Your task to perform on an android device: clear all cookies in the chrome app Image 0: 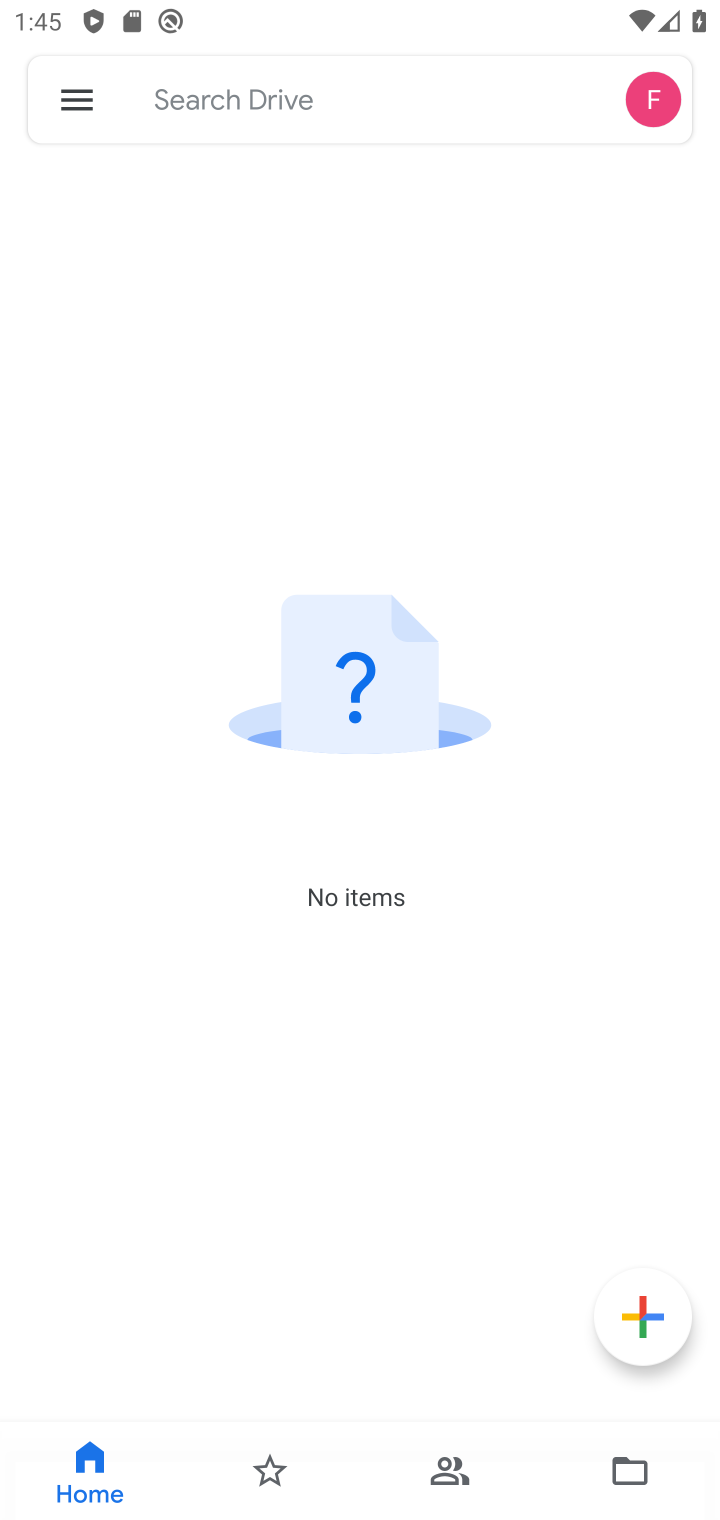
Step 0: press home button
Your task to perform on an android device: clear all cookies in the chrome app Image 1: 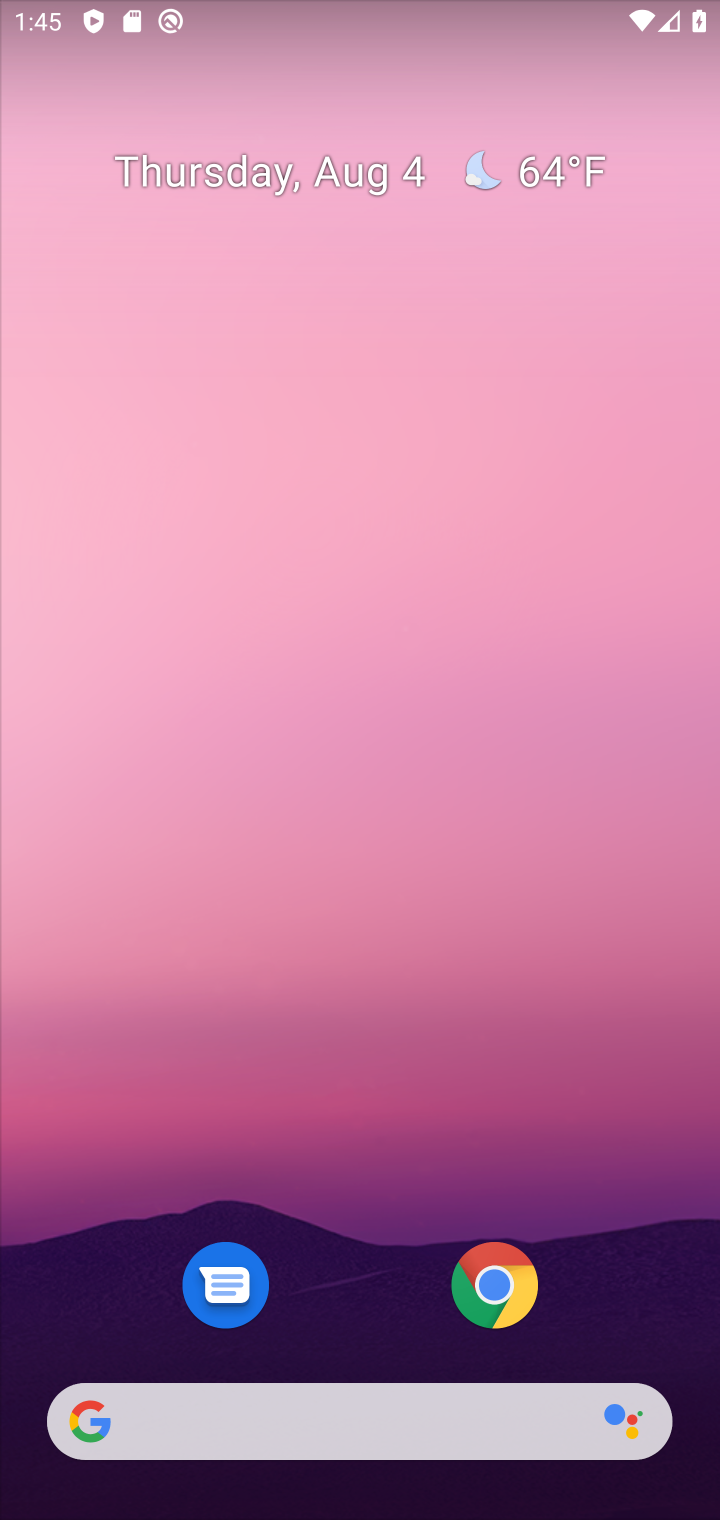
Step 1: click (499, 1289)
Your task to perform on an android device: clear all cookies in the chrome app Image 2: 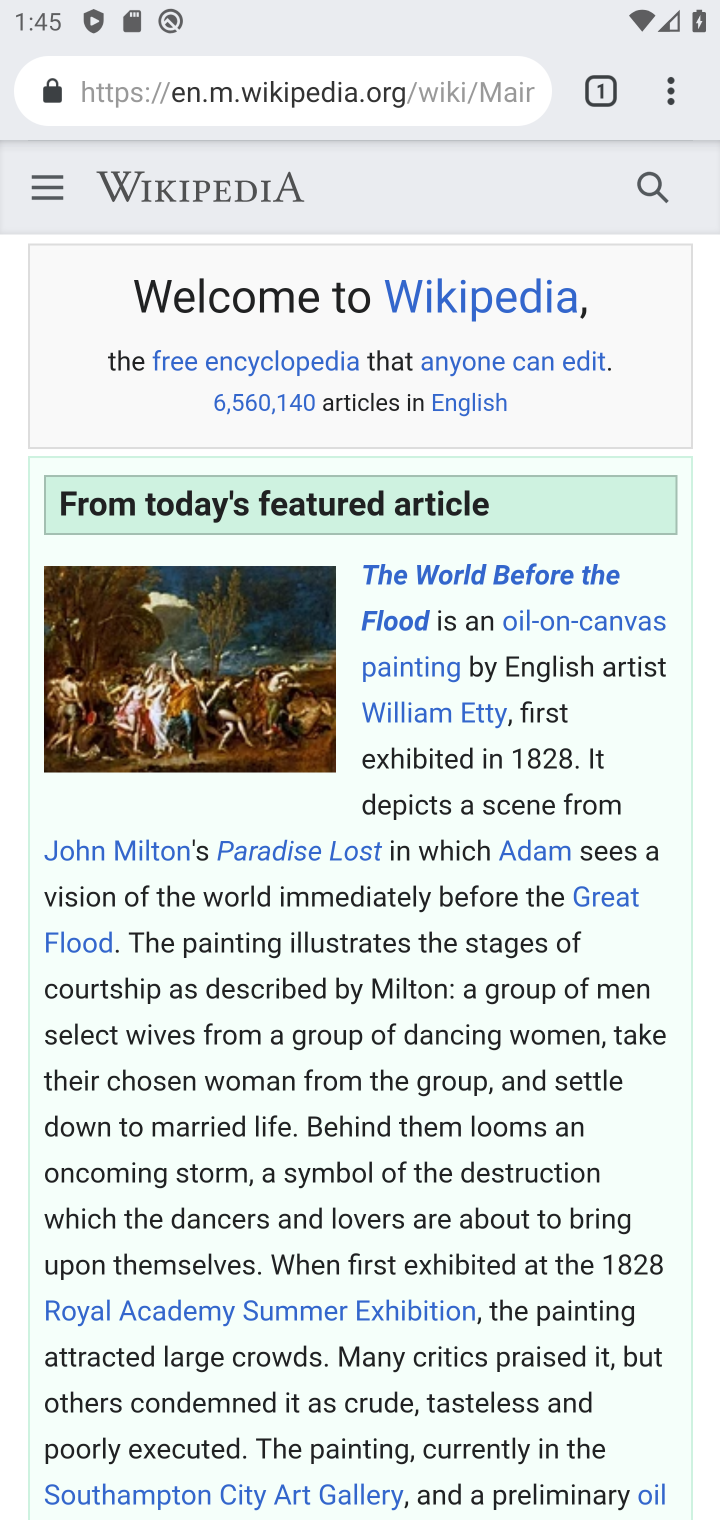
Step 2: click (661, 102)
Your task to perform on an android device: clear all cookies in the chrome app Image 3: 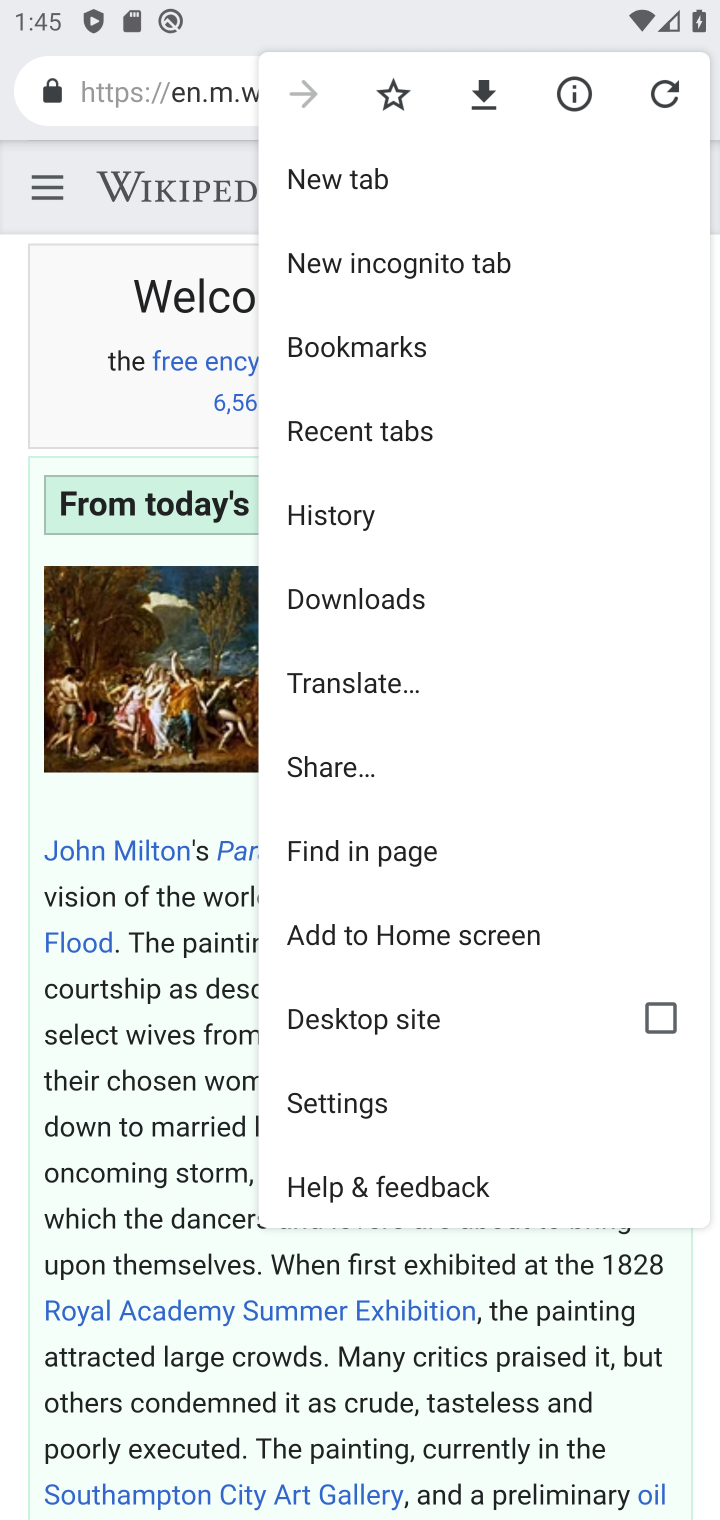
Step 3: click (333, 514)
Your task to perform on an android device: clear all cookies in the chrome app Image 4: 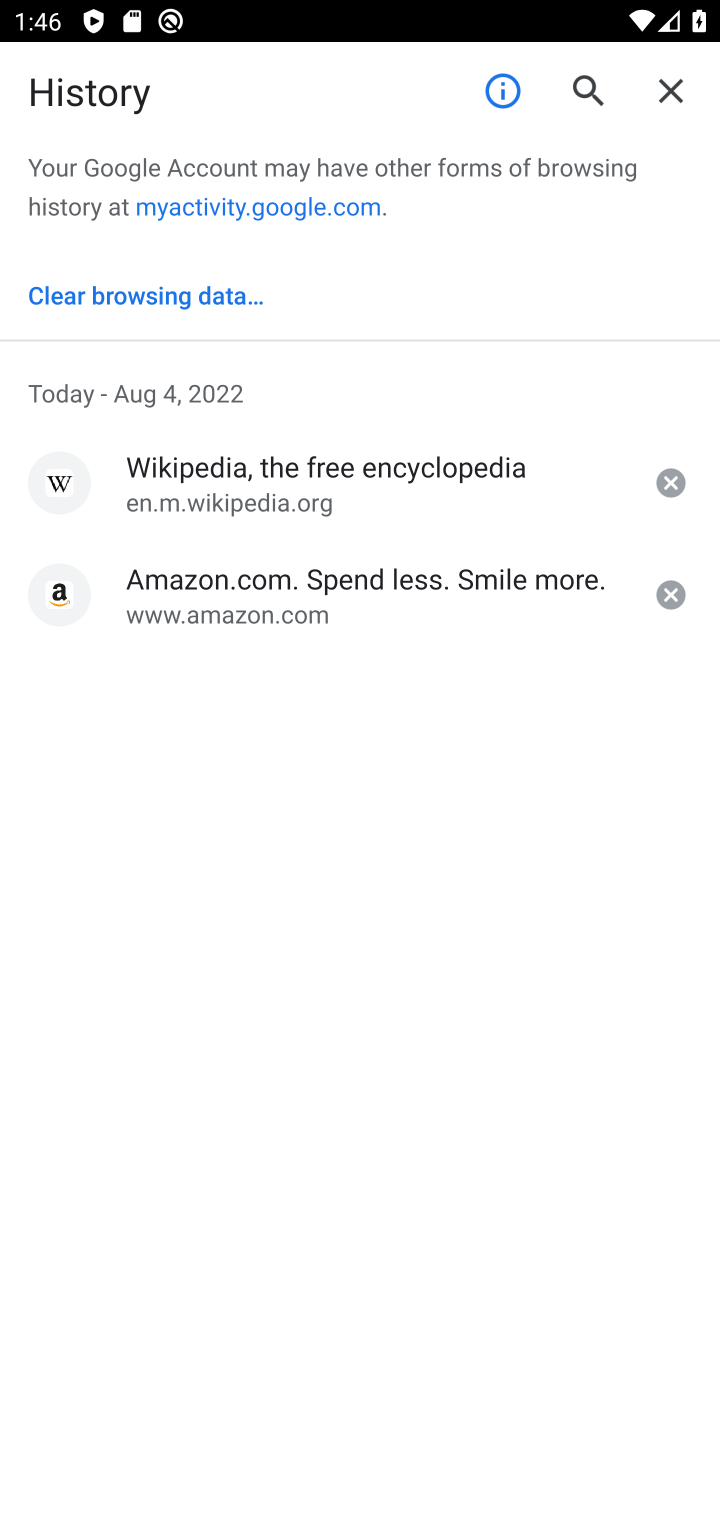
Step 4: click (138, 295)
Your task to perform on an android device: clear all cookies in the chrome app Image 5: 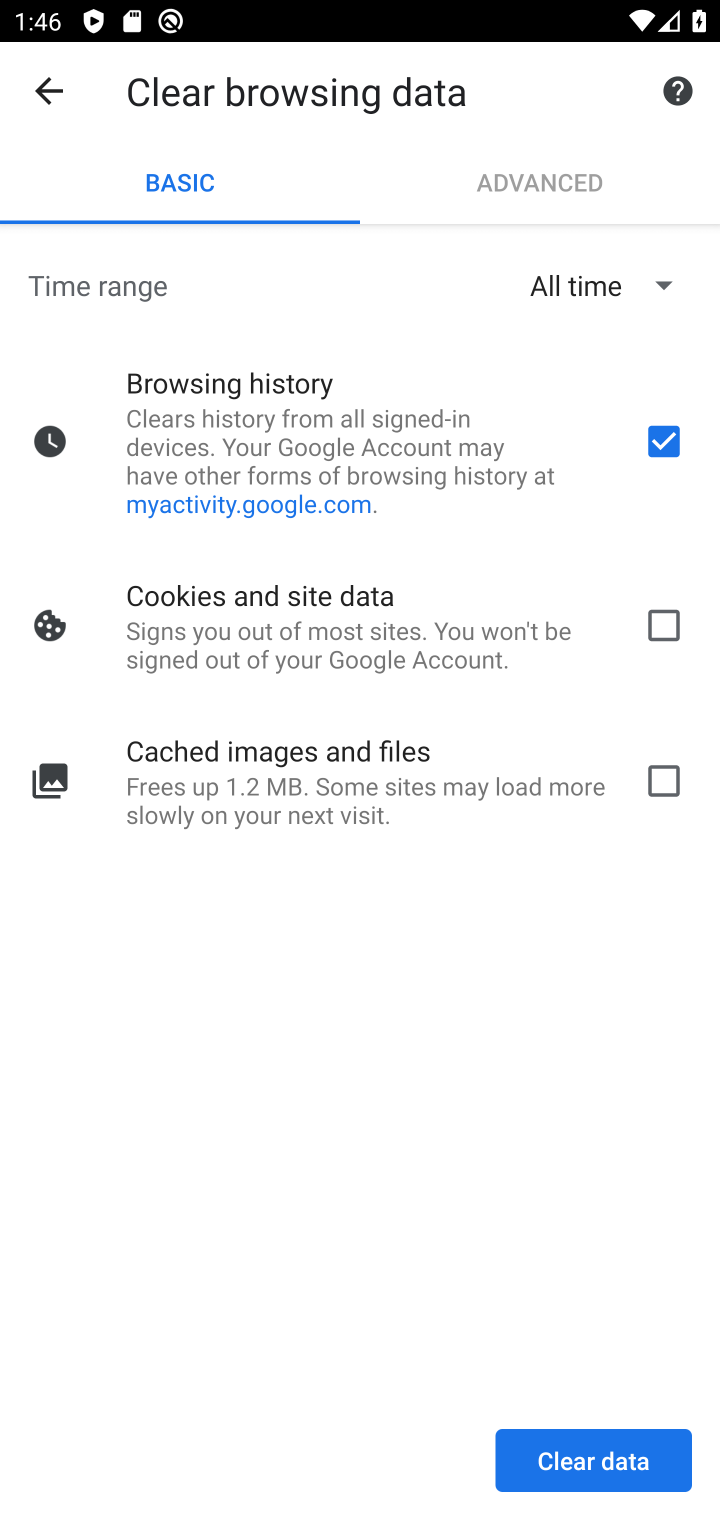
Step 5: click (660, 628)
Your task to perform on an android device: clear all cookies in the chrome app Image 6: 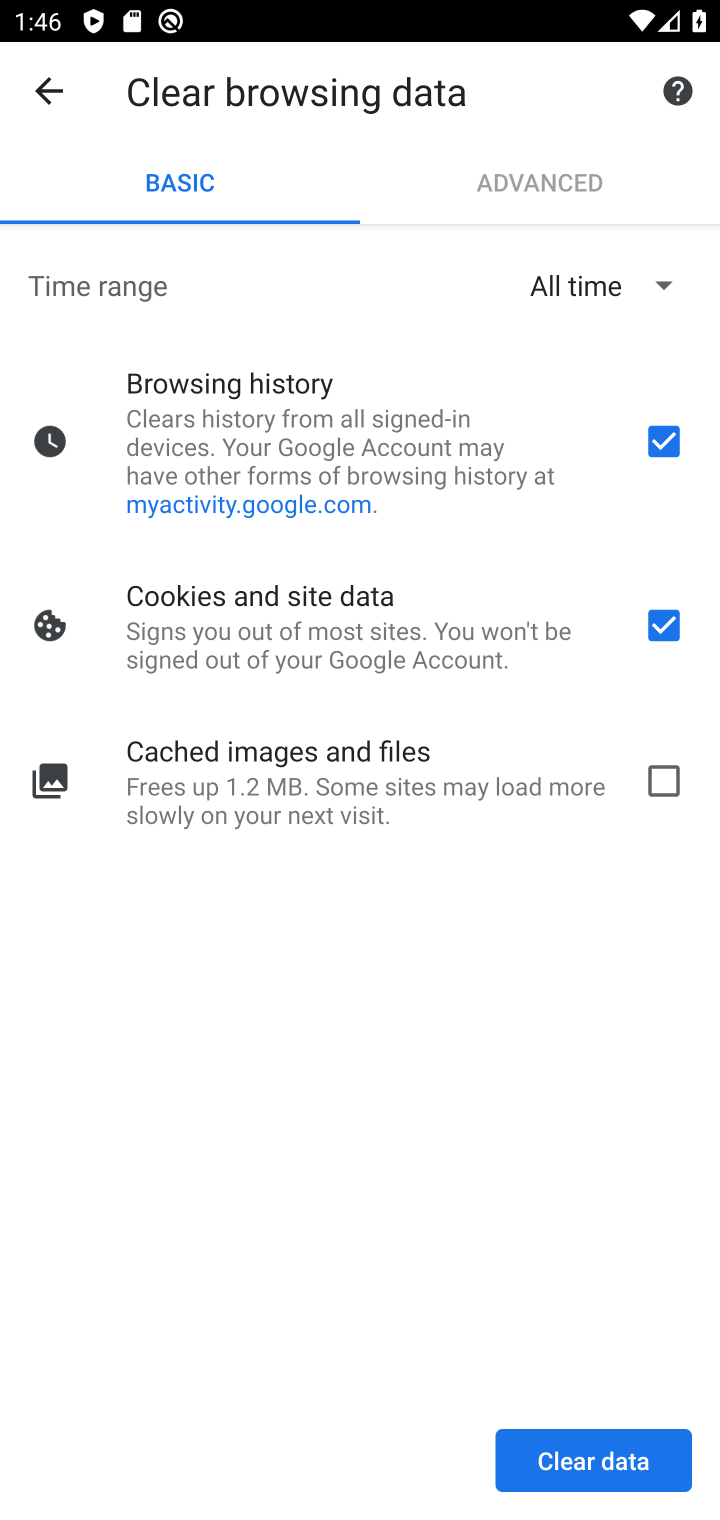
Step 6: click (660, 443)
Your task to perform on an android device: clear all cookies in the chrome app Image 7: 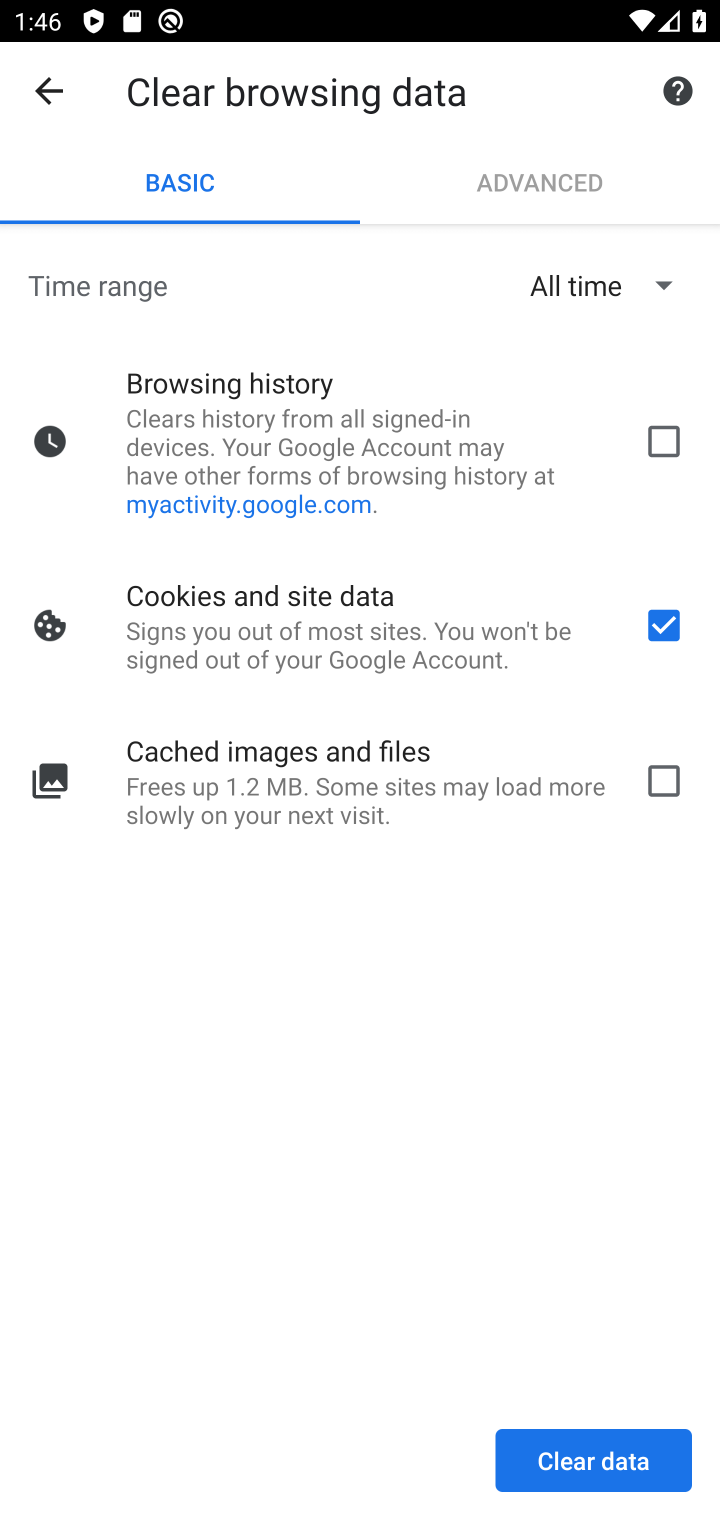
Step 7: click (595, 1461)
Your task to perform on an android device: clear all cookies in the chrome app Image 8: 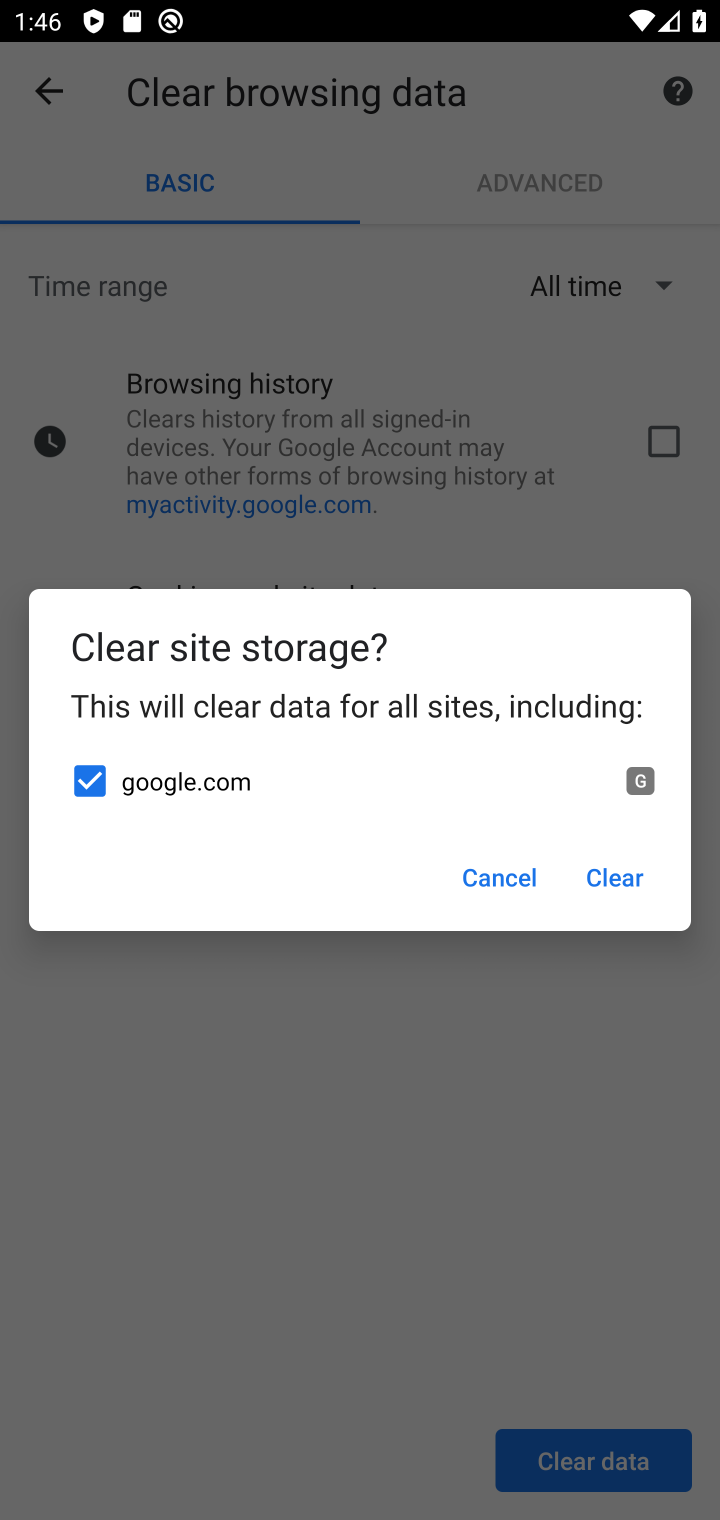
Step 8: click (608, 871)
Your task to perform on an android device: clear all cookies in the chrome app Image 9: 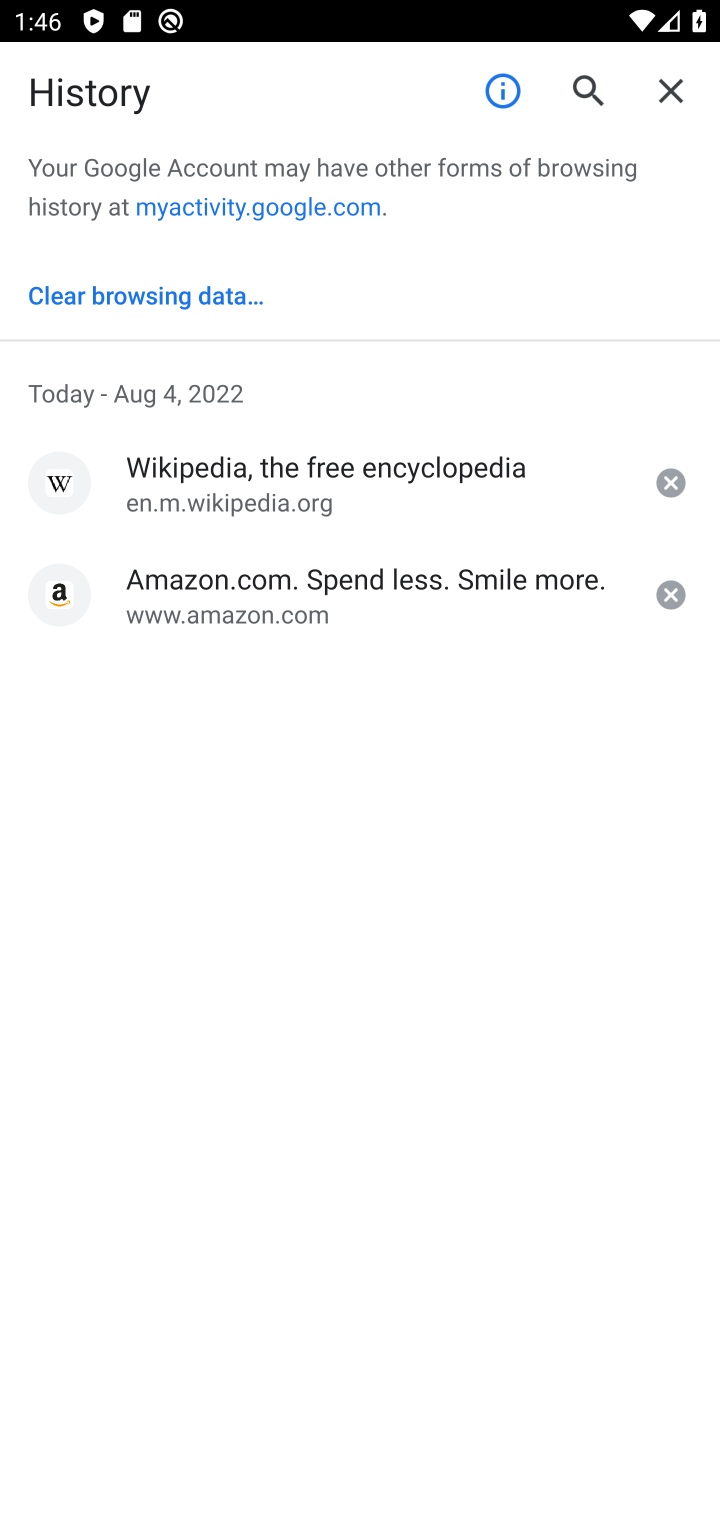
Step 9: task complete